Your task to perform on an android device: Open Yahoo.com Image 0: 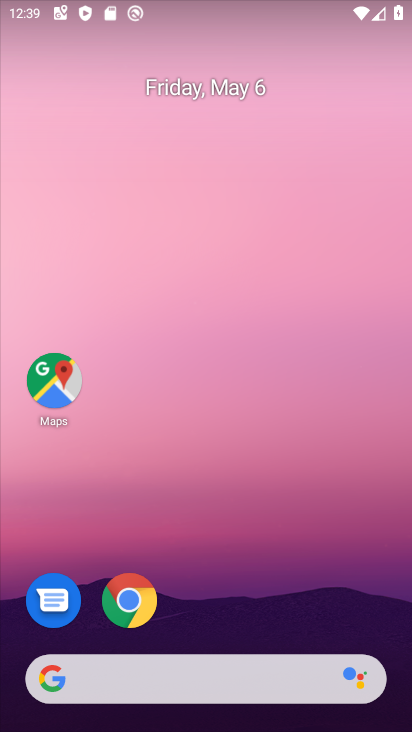
Step 0: drag from (259, 615) to (216, 43)
Your task to perform on an android device: Open Yahoo.com Image 1: 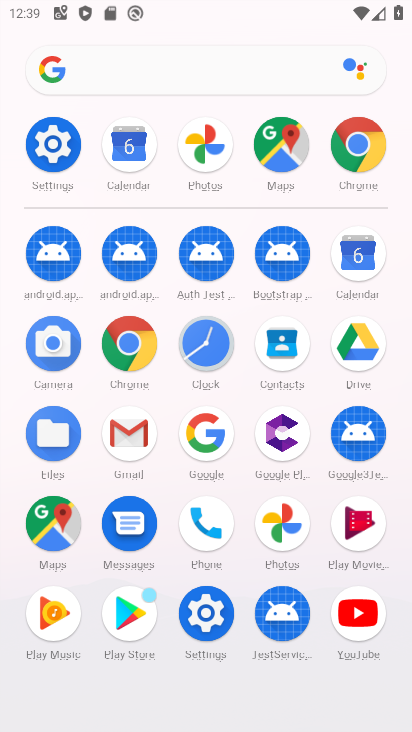
Step 1: click (337, 158)
Your task to perform on an android device: Open Yahoo.com Image 2: 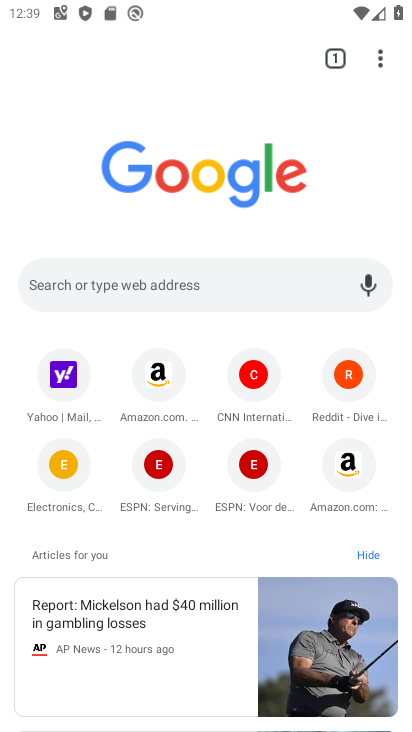
Step 2: click (52, 365)
Your task to perform on an android device: Open Yahoo.com Image 3: 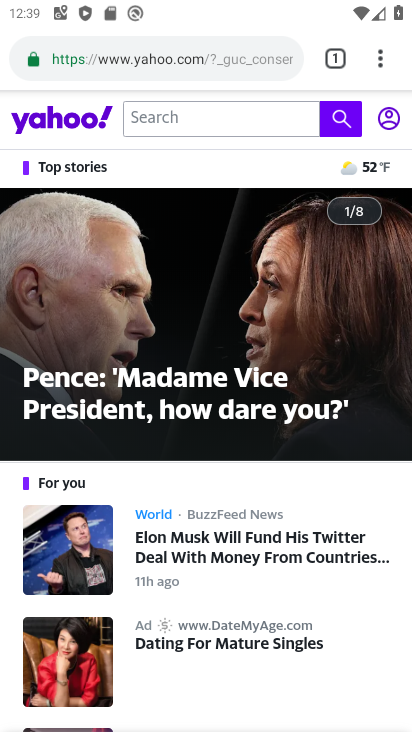
Step 3: task complete